Your task to perform on an android device: empty trash in google photos Image 0: 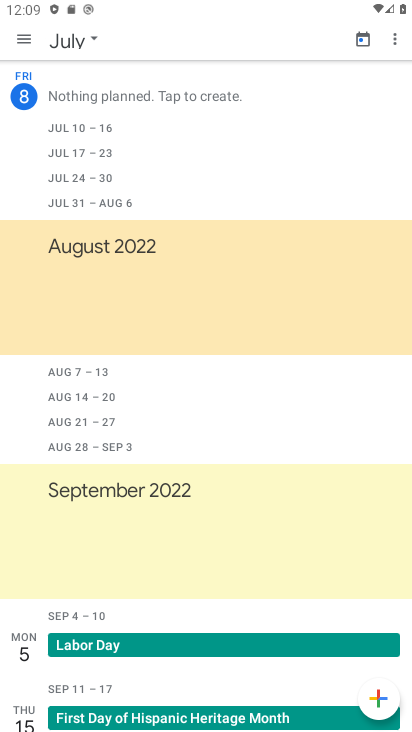
Step 0: press home button
Your task to perform on an android device: empty trash in google photos Image 1: 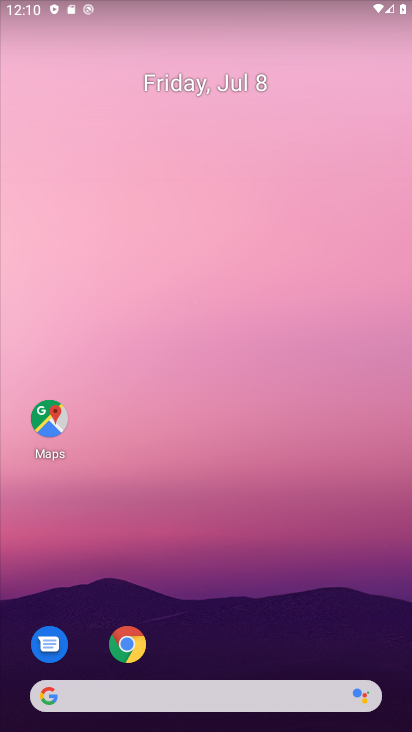
Step 1: drag from (248, 686) to (117, 27)
Your task to perform on an android device: empty trash in google photos Image 2: 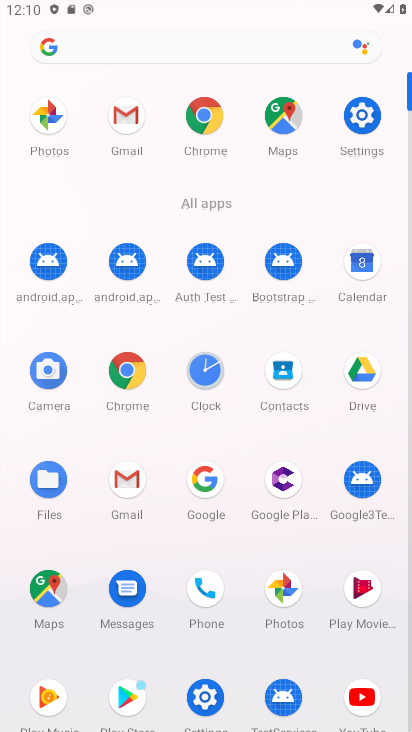
Step 2: click (275, 589)
Your task to perform on an android device: empty trash in google photos Image 3: 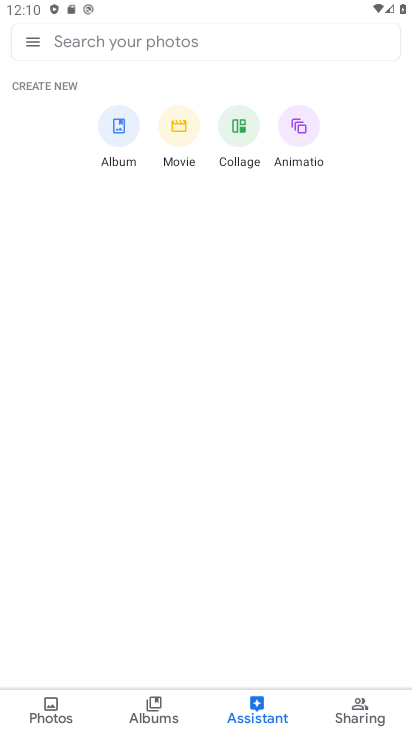
Step 3: click (36, 39)
Your task to perform on an android device: empty trash in google photos Image 4: 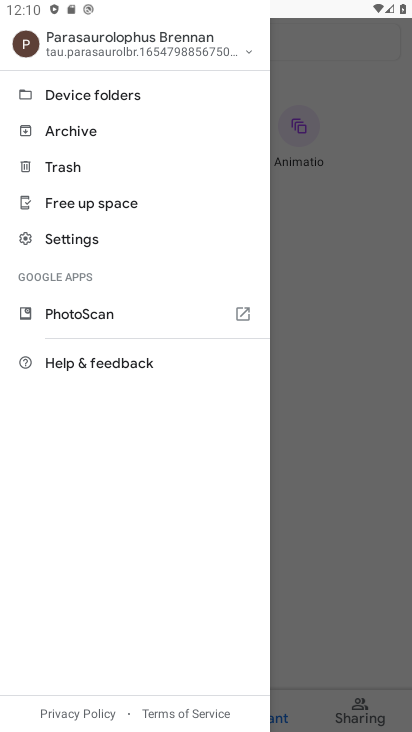
Step 4: click (77, 164)
Your task to perform on an android device: empty trash in google photos Image 5: 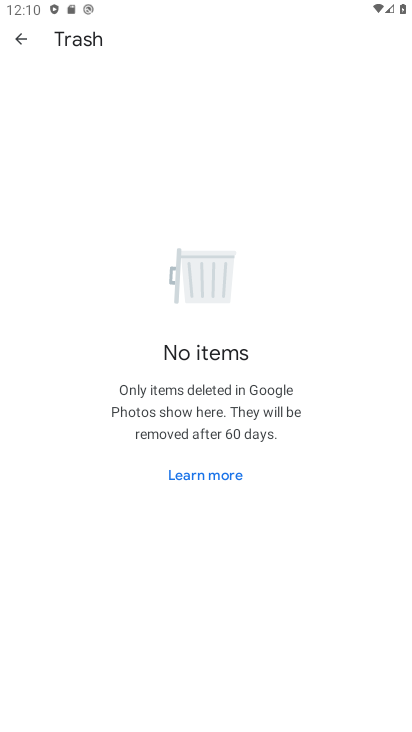
Step 5: task complete